Your task to perform on an android device: turn off location history Image 0: 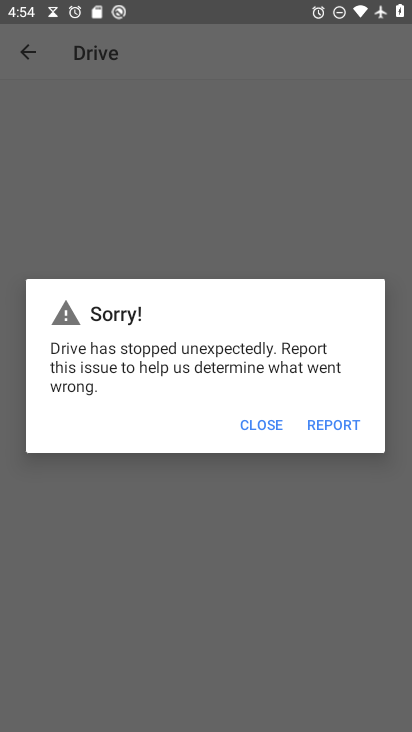
Step 0: press back button
Your task to perform on an android device: turn off location history Image 1: 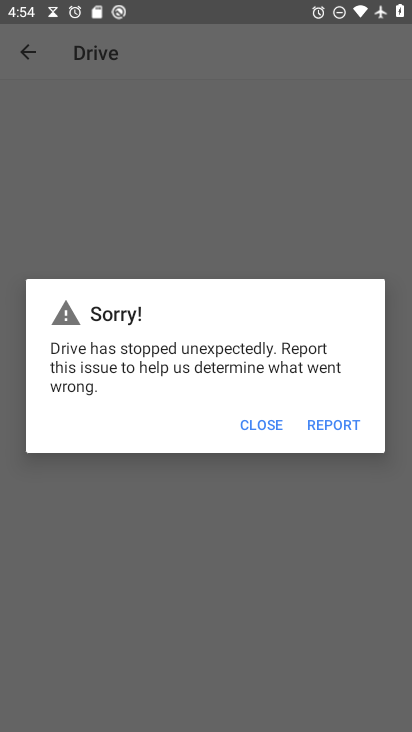
Step 1: press back button
Your task to perform on an android device: turn off location history Image 2: 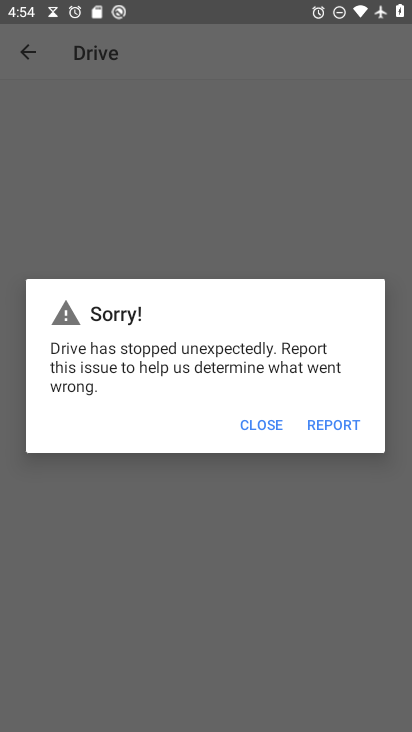
Step 2: press home button
Your task to perform on an android device: turn off location history Image 3: 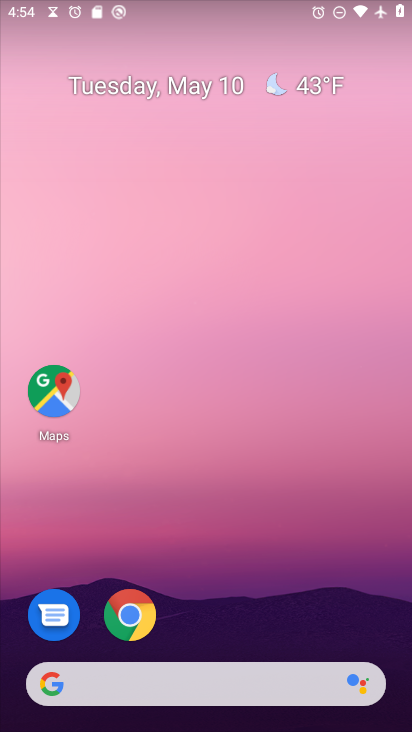
Step 3: drag from (269, 571) to (247, 44)
Your task to perform on an android device: turn off location history Image 4: 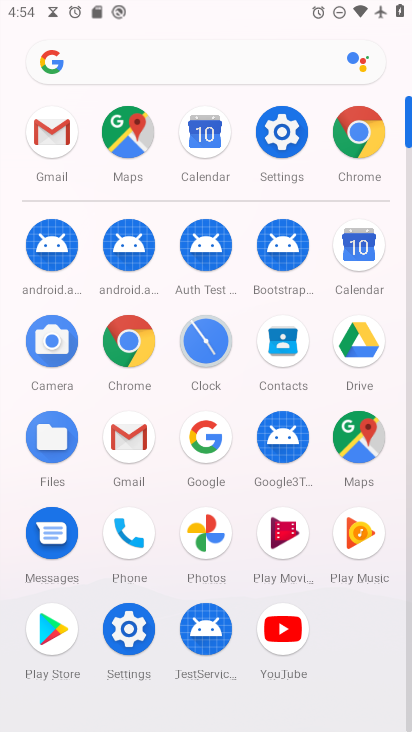
Step 4: drag from (8, 544) to (32, 171)
Your task to perform on an android device: turn off location history Image 5: 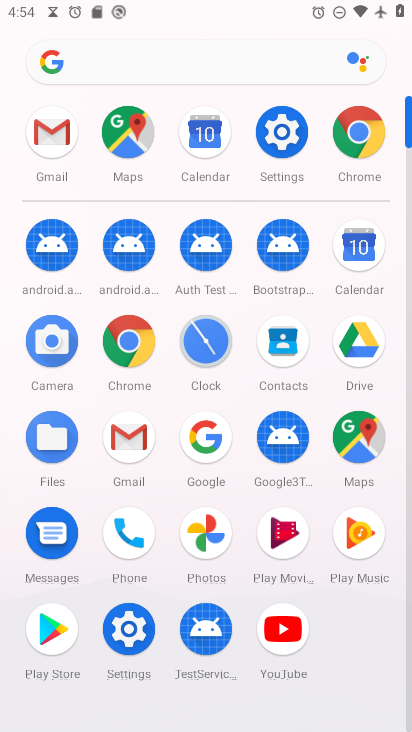
Step 5: click (123, 624)
Your task to perform on an android device: turn off location history Image 6: 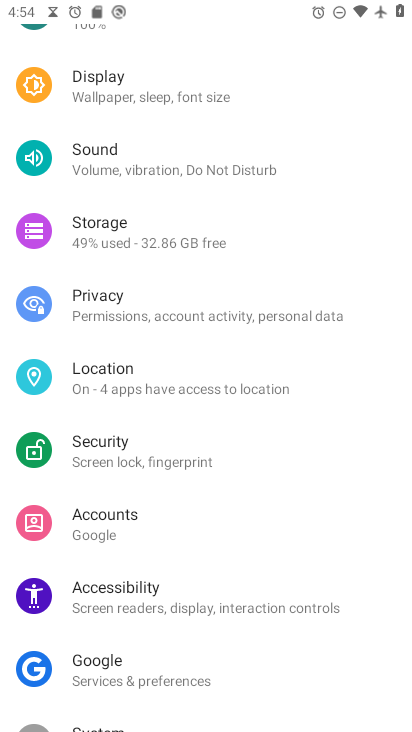
Step 6: click (170, 376)
Your task to perform on an android device: turn off location history Image 7: 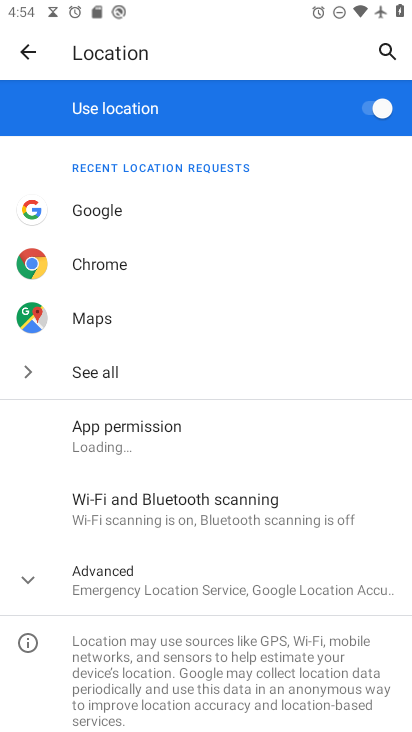
Step 7: click (136, 584)
Your task to perform on an android device: turn off location history Image 8: 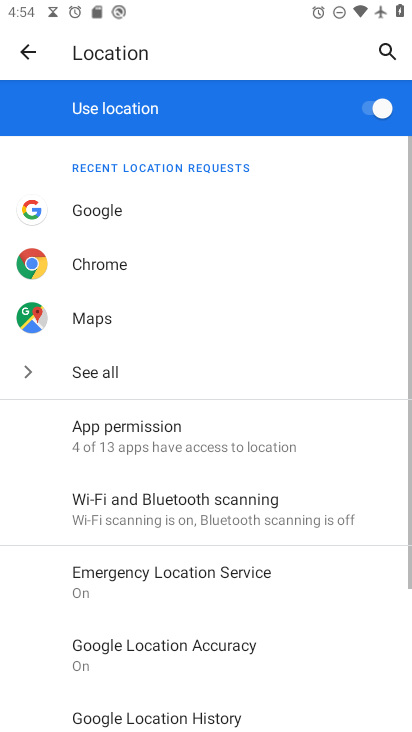
Step 8: drag from (251, 419) to (274, 207)
Your task to perform on an android device: turn off location history Image 9: 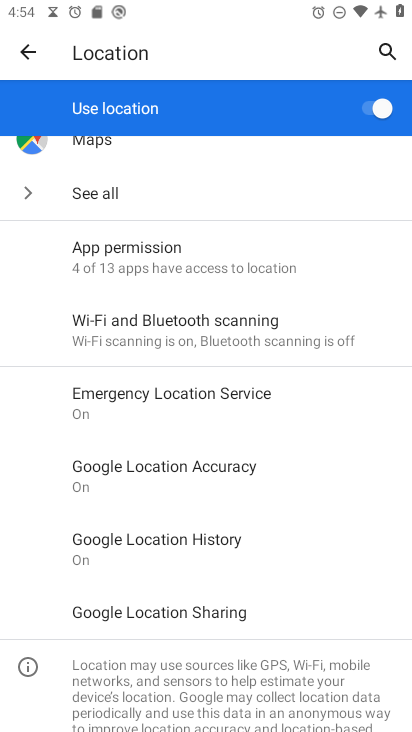
Step 9: click (213, 543)
Your task to perform on an android device: turn off location history Image 10: 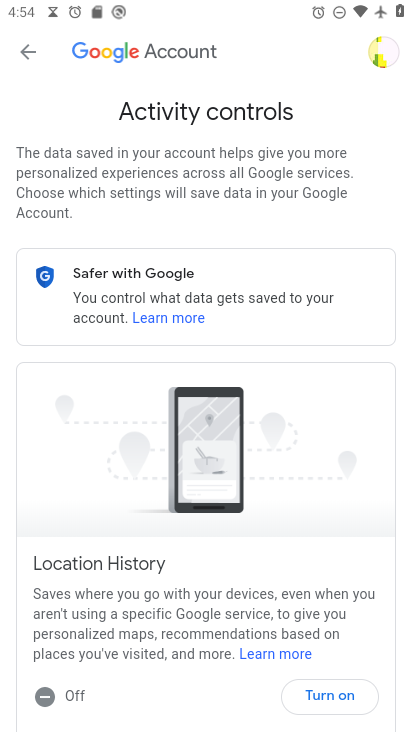
Step 10: task complete